Your task to perform on an android device: Go to settings Image 0: 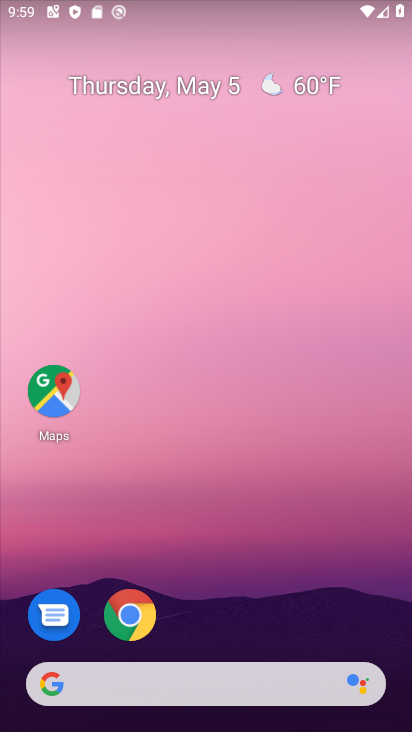
Step 0: drag from (225, 633) to (292, 89)
Your task to perform on an android device: Go to settings Image 1: 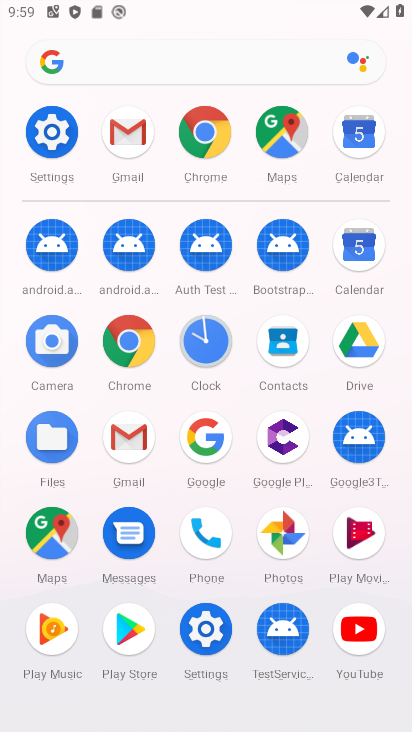
Step 1: click (51, 132)
Your task to perform on an android device: Go to settings Image 2: 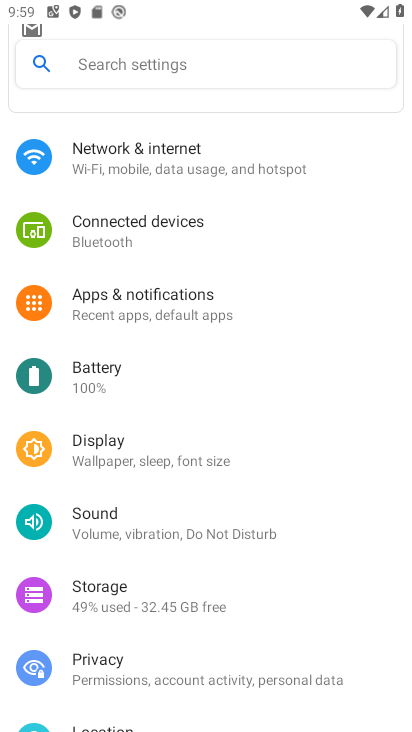
Step 2: task complete